Your task to perform on an android device: remove spam from my inbox in the gmail app Image 0: 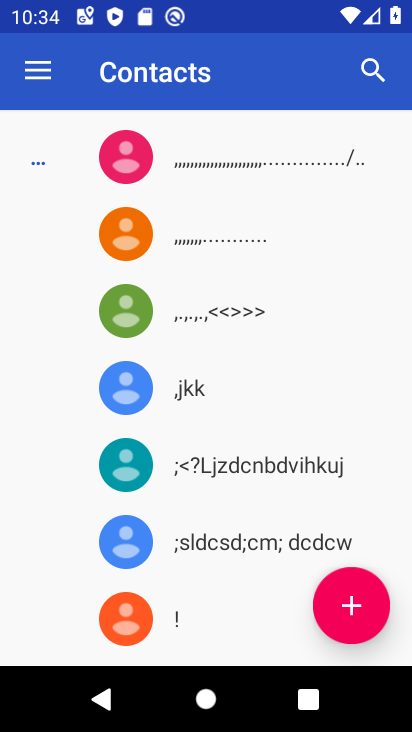
Step 0: press home button
Your task to perform on an android device: remove spam from my inbox in the gmail app Image 1: 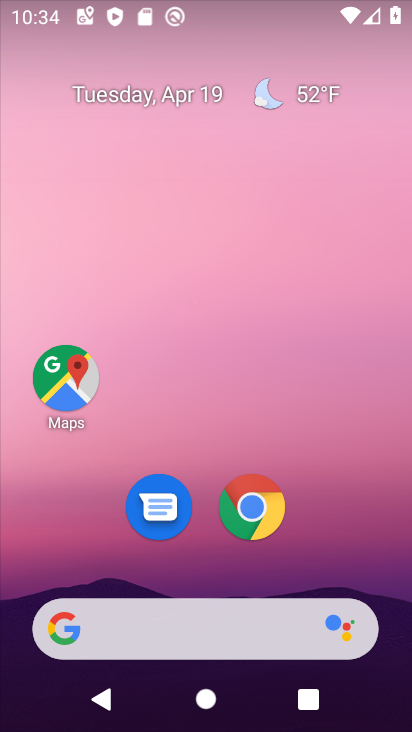
Step 1: drag from (368, 465) to (373, 67)
Your task to perform on an android device: remove spam from my inbox in the gmail app Image 2: 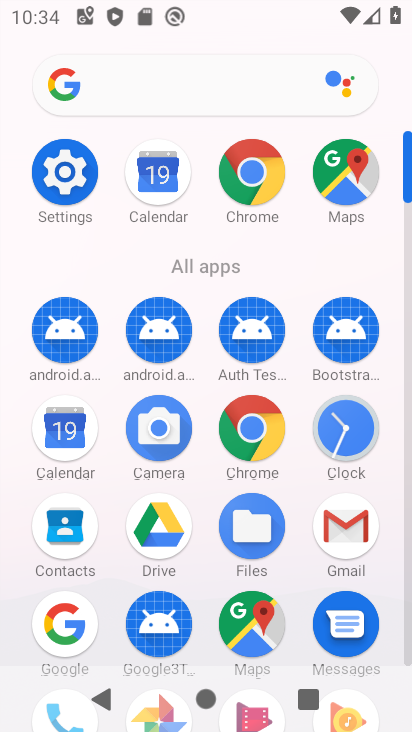
Step 2: drag from (291, 569) to (295, 245)
Your task to perform on an android device: remove spam from my inbox in the gmail app Image 3: 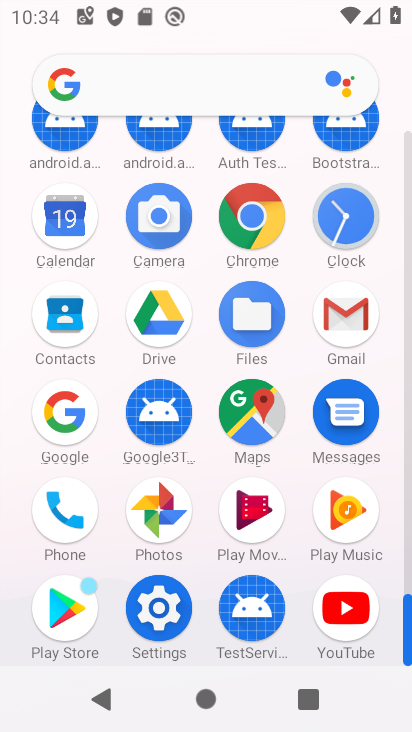
Step 3: click (338, 308)
Your task to perform on an android device: remove spam from my inbox in the gmail app Image 4: 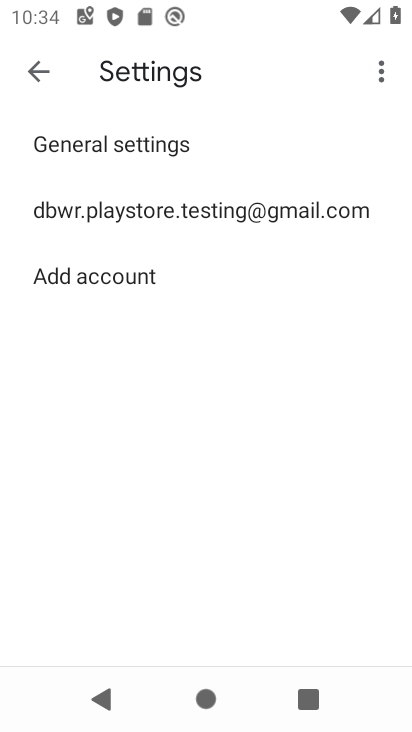
Step 4: click (35, 77)
Your task to perform on an android device: remove spam from my inbox in the gmail app Image 5: 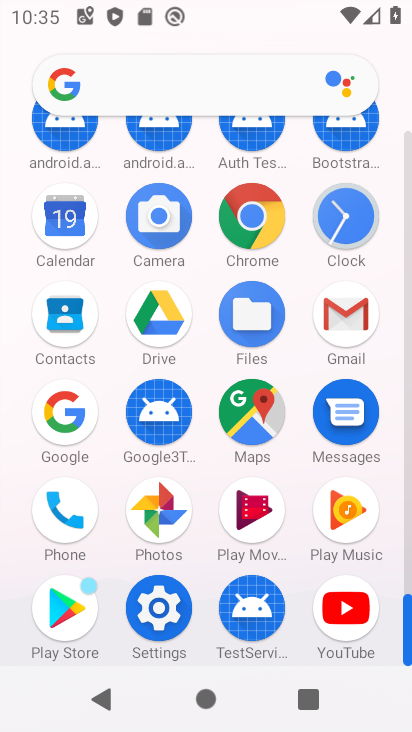
Step 5: click (347, 332)
Your task to perform on an android device: remove spam from my inbox in the gmail app Image 6: 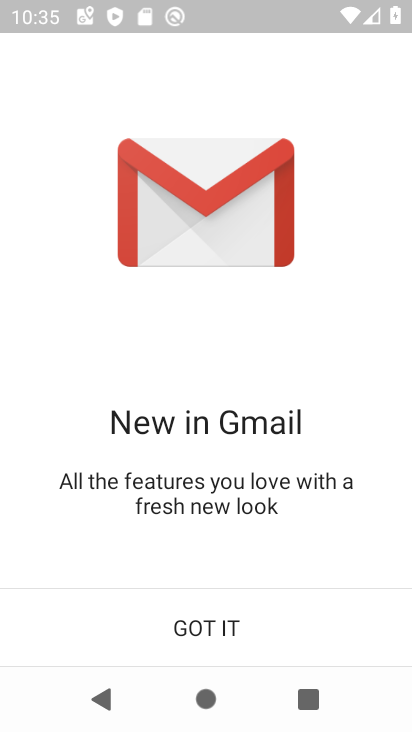
Step 6: click (224, 636)
Your task to perform on an android device: remove spam from my inbox in the gmail app Image 7: 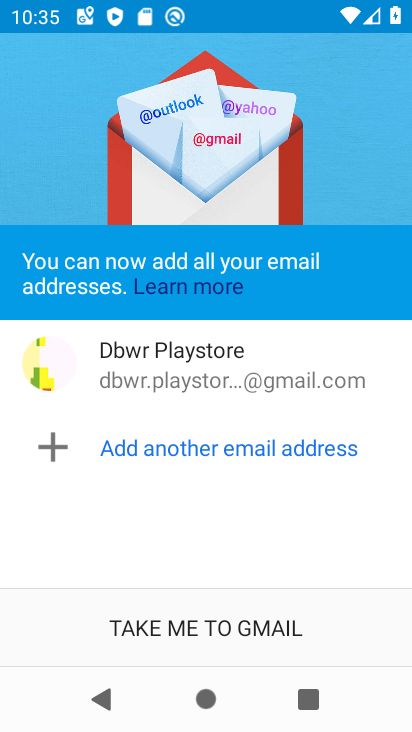
Step 7: click (242, 621)
Your task to perform on an android device: remove spam from my inbox in the gmail app Image 8: 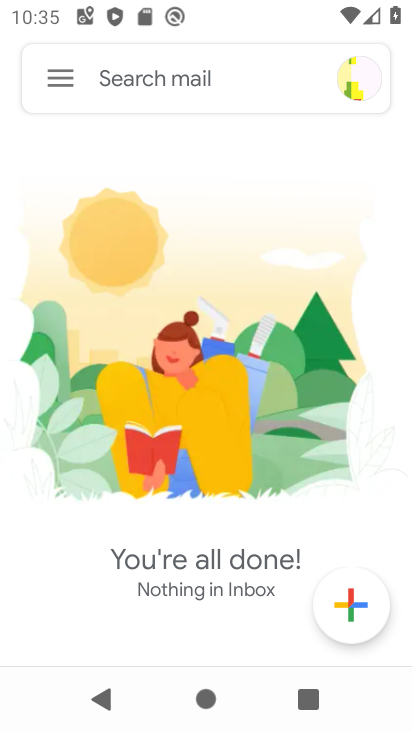
Step 8: click (56, 77)
Your task to perform on an android device: remove spam from my inbox in the gmail app Image 9: 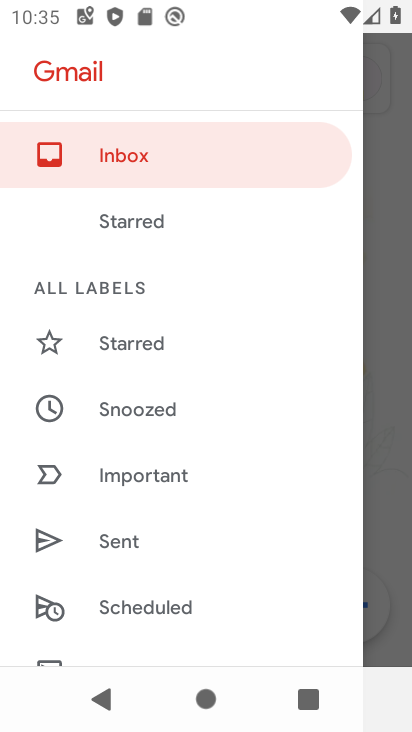
Step 9: drag from (231, 546) to (267, 244)
Your task to perform on an android device: remove spam from my inbox in the gmail app Image 10: 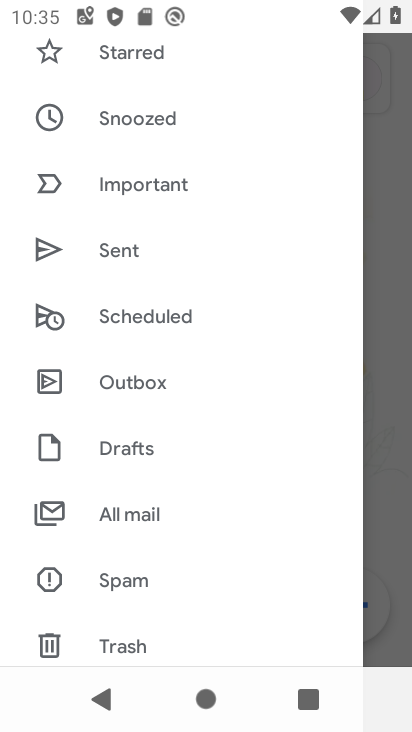
Step 10: drag from (253, 575) to (280, 338)
Your task to perform on an android device: remove spam from my inbox in the gmail app Image 11: 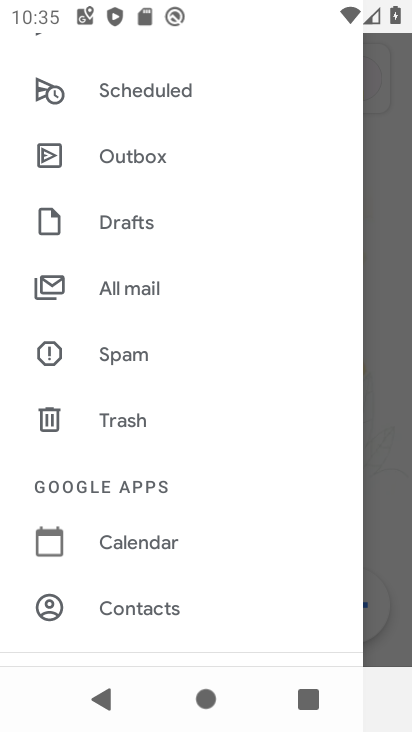
Step 11: drag from (247, 570) to (253, 350)
Your task to perform on an android device: remove spam from my inbox in the gmail app Image 12: 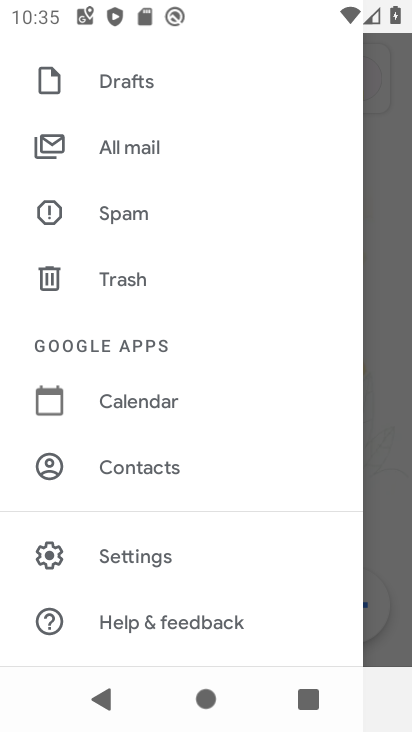
Step 12: click (124, 219)
Your task to perform on an android device: remove spam from my inbox in the gmail app Image 13: 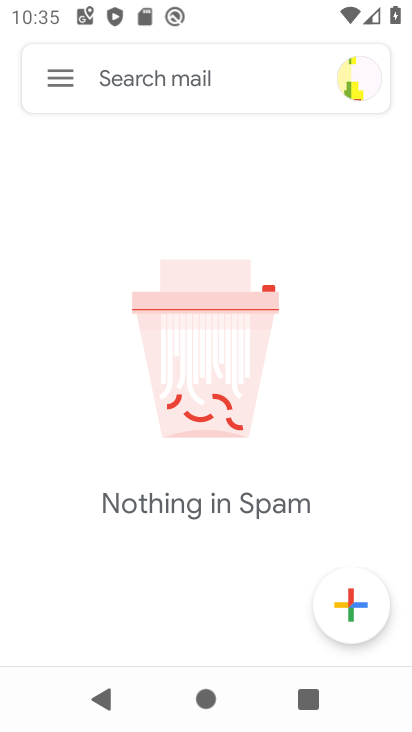
Step 13: task complete